Your task to perform on an android device: delete the emails in spam in the gmail app Image 0: 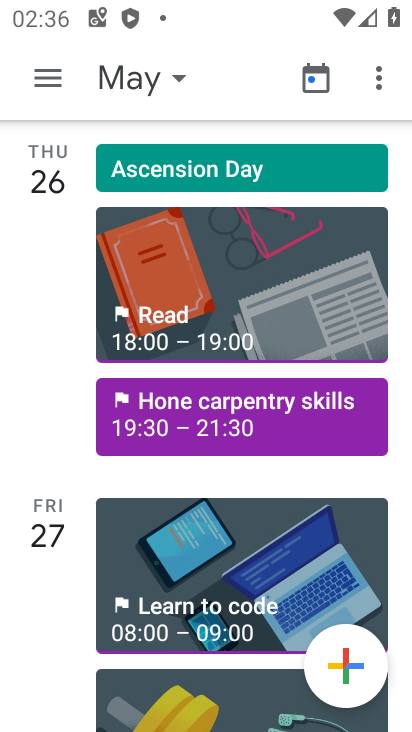
Step 0: press home button
Your task to perform on an android device: delete the emails in spam in the gmail app Image 1: 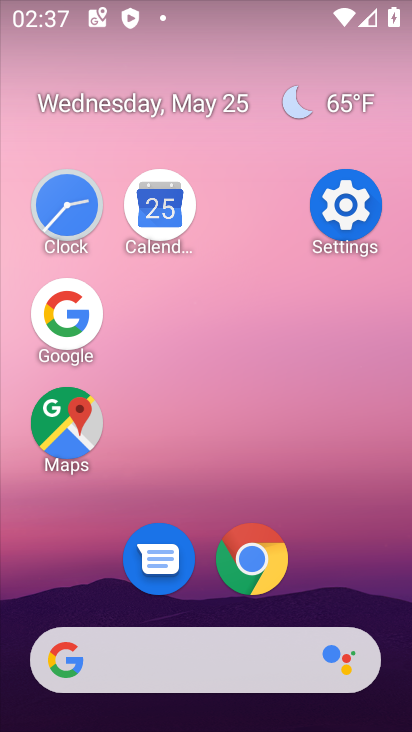
Step 1: drag from (339, 589) to (360, 148)
Your task to perform on an android device: delete the emails in spam in the gmail app Image 2: 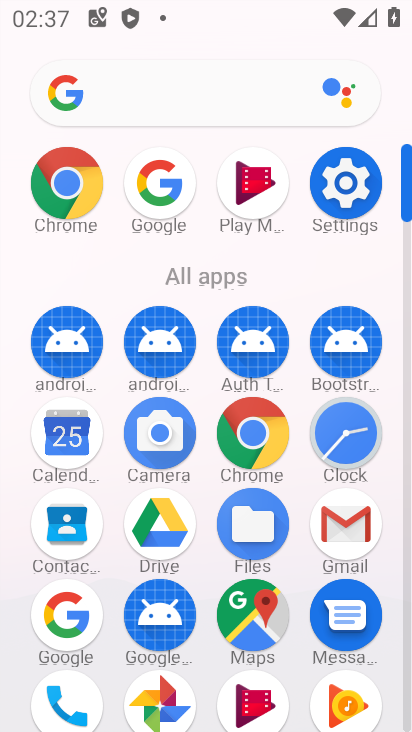
Step 2: drag from (350, 517) to (165, 344)
Your task to perform on an android device: delete the emails in spam in the gmail app Image 3: 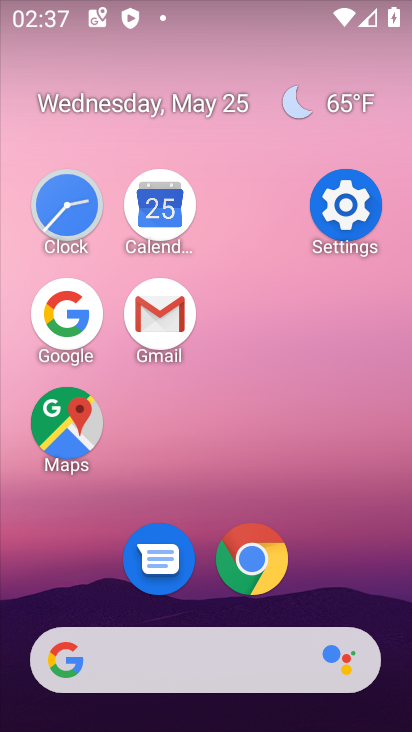
Step 3: click (178, 316)
Your task to perform on an android device: delete the emails in spam in the gmail app Image 4: 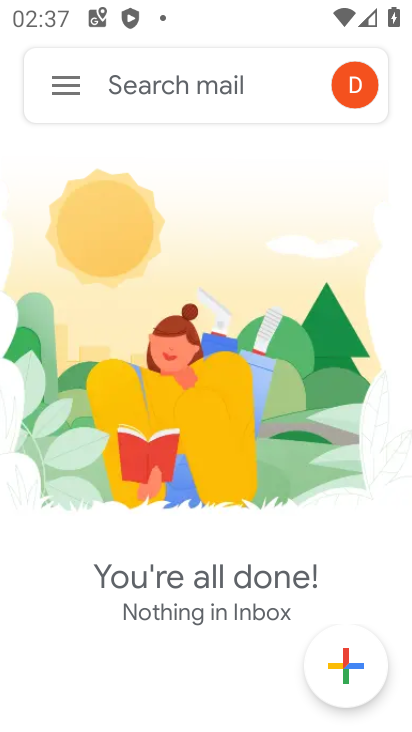
Step 4: click (82, 85)
Your task to perform on an android device: delete the emails in spam in the gmail app Image 5: 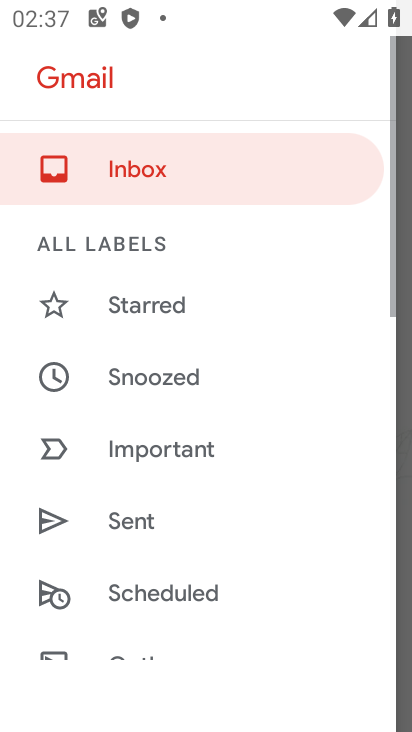
Step 5: drag from (180, 525) to (219, 145)
Your task to perform on an android device: delete the emails in spam in the gmail app Image 6: 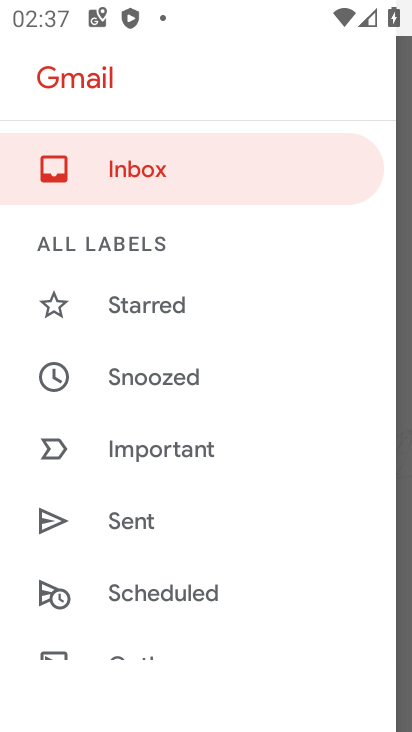
Step 6: drag from (240, 574) to (248, 171)
Your task to perform on an android device: delete the emails in spam in the gmail app Image 7: 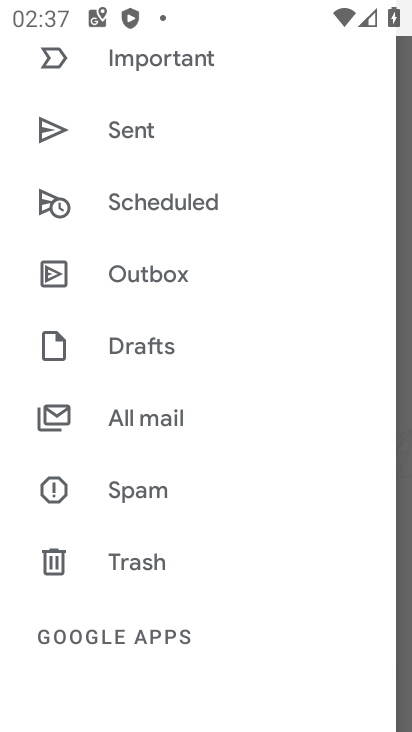
Step 7: click (233, 479)
Your task to perform on an android device: delete the emails in spam in the gmail app Image 8: 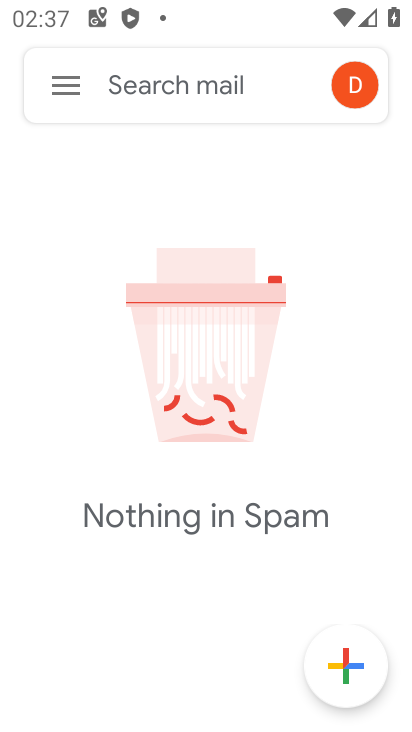
Step 8: task complete